Your task to perform on an android device: Open Google Chrome and open the bookmarks view Image 0: 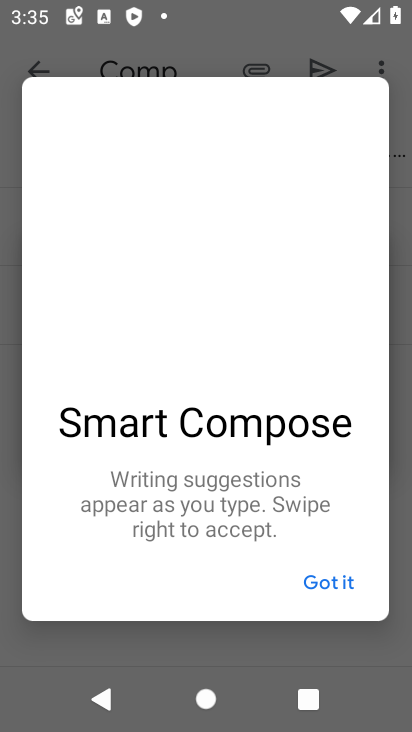
Step 0: click (242, 586)
Your task to perform on an android device: Open Google Chrome and open the bookmarks view Image 1: 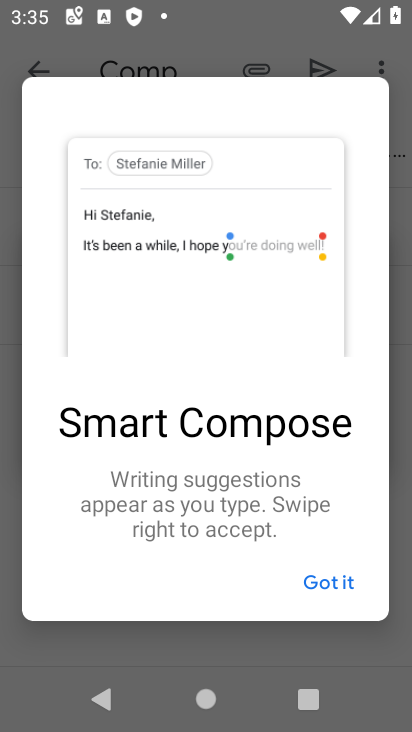
Step 1: press home button
Your task to perform on an android device: Open Google Chrome and open the bookmarks view Image 2: 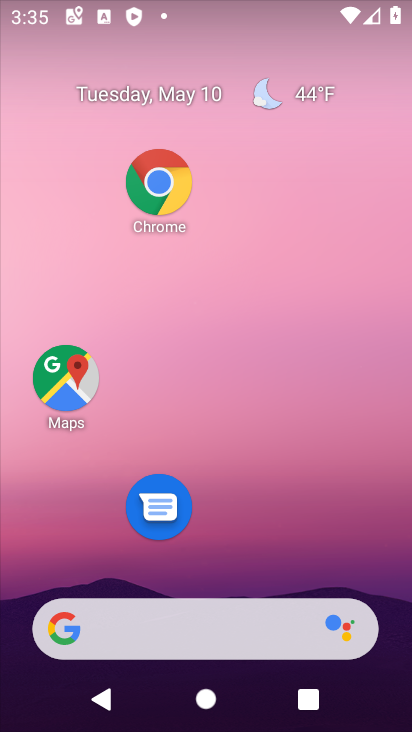
Step 2: drag from (263, 519) to (259, 105)
Your task to perform on an android device: Open Google Chrome and open the bookmarks view Image 3: 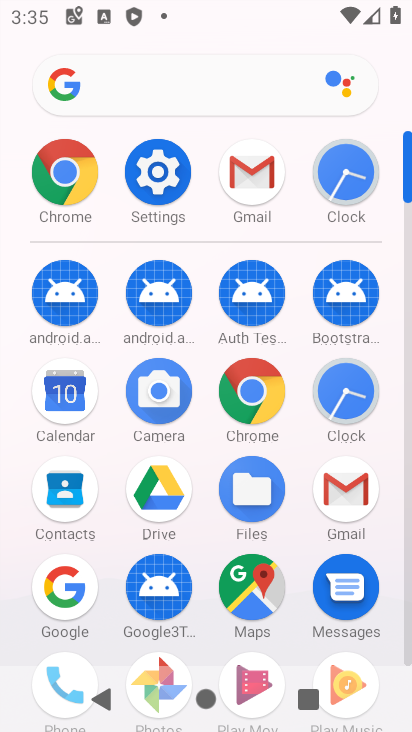
Step 3: click (277, 393)
Your task to perform on an android device: Open Google Chrome and open the bookmarks view Image 4: 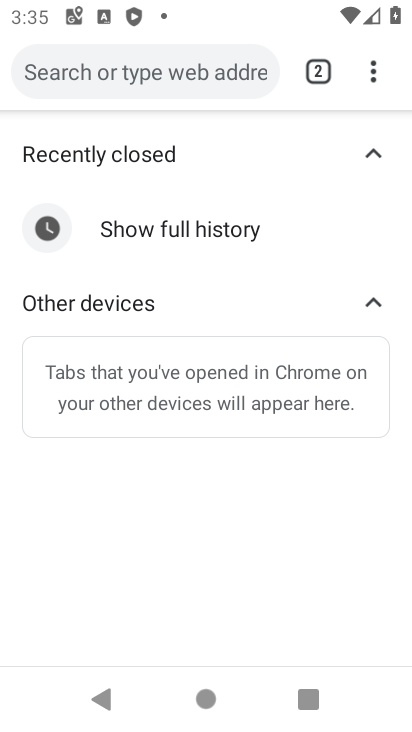
Step 4: click (365, 84)
Your task to perform on an android device: Open Google Chrome and open the bookmarks view Image 5: 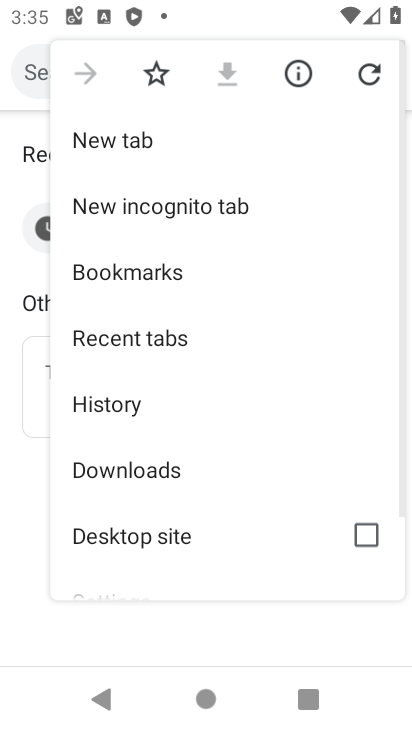
Step 5: click (248, 258)
Your task to perform on an android device: Open Google Chrome and open the bookmarks view Image 6: 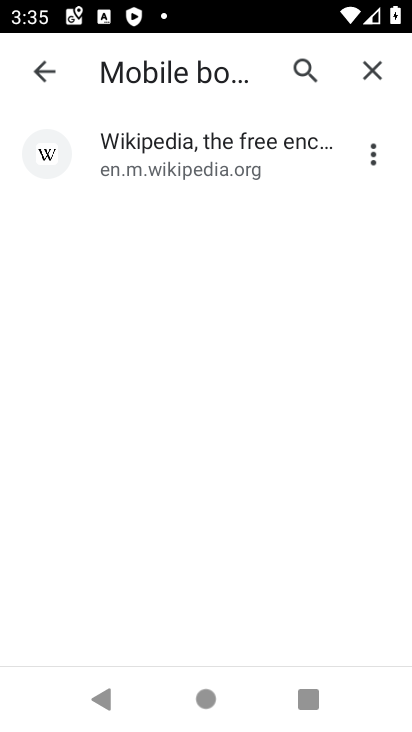
Step 6: click (248, 258)
Your task to perform on an android device: Open Google Chrome and open the bookmarks view Image 7: 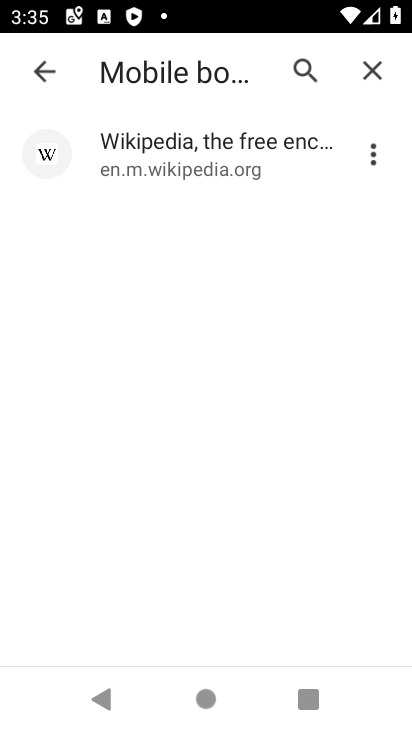
Step 7: task complete